Your task to perform on an android device: turn notification dots on Image 0: 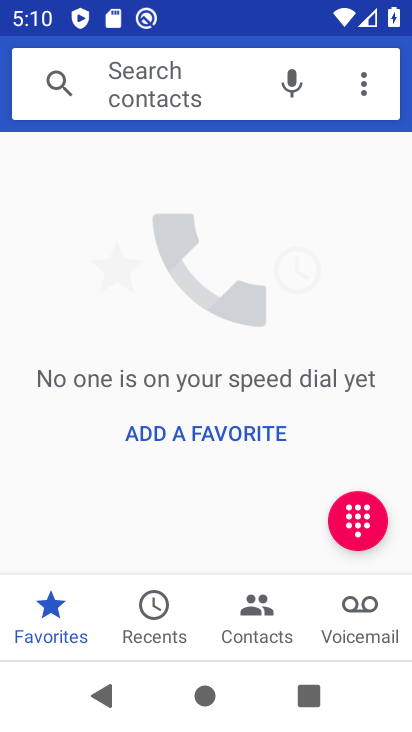
Step 0: press home button
Your task to perform on an android device: turn notification dots on Image 1: 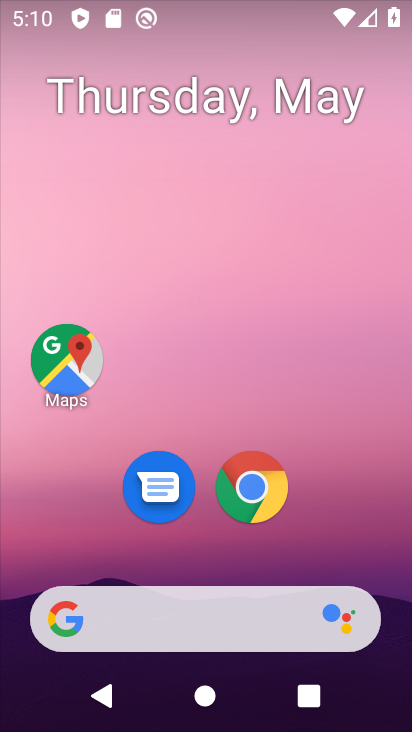
Step 1: drag from (320, 545) to (272, 86)
Your task to perform on an android device: turn notification dots on Image 2: 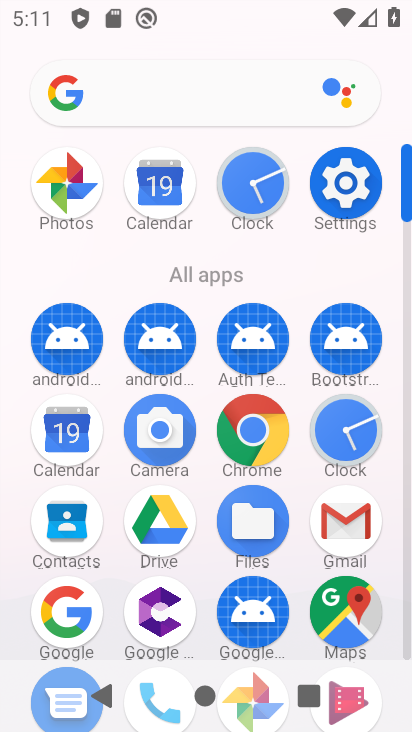
Step 2: click (336, 186)
Your task to perform on an android device: turn notification dots on Image 3: 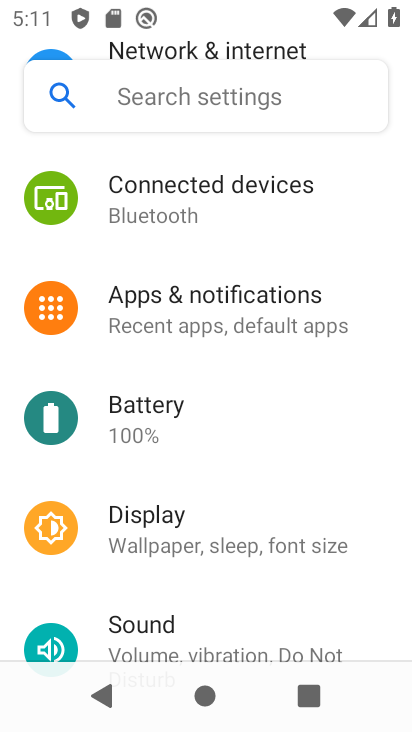
Step 3: drag from (273, 392) to (271, 609)
Your task to perform on an android device: turn notification dots on Image 4: 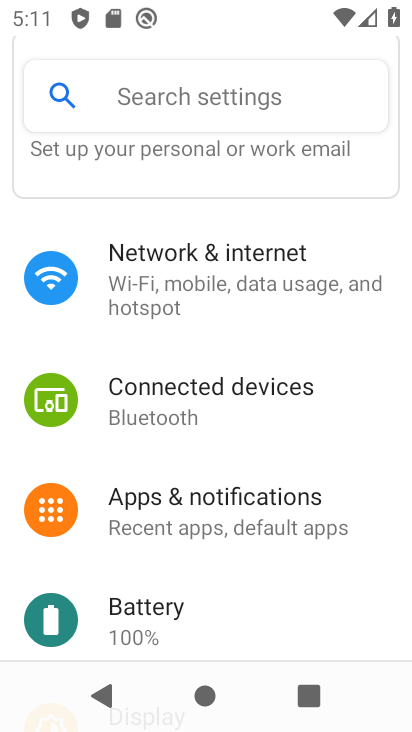
Step 4: click (246, 505)
Your task to perform on an android device: turn notification dots on Image 5: 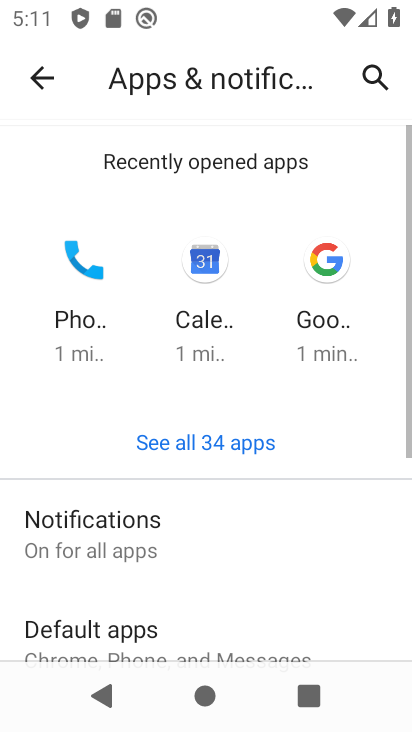
Step 5: click (238, 534)
Your task to perform on an android device: turn notification dots on Image 6: 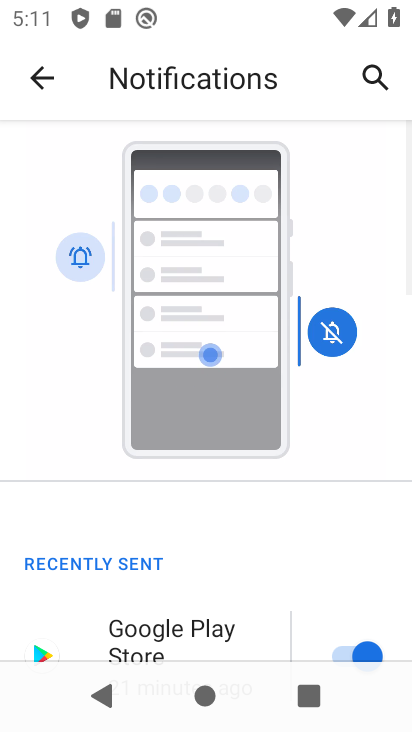
Step 6: drag from (249, 573) to (249, 151)
Your task to perform on an android device: turn notification dots on Image 7: 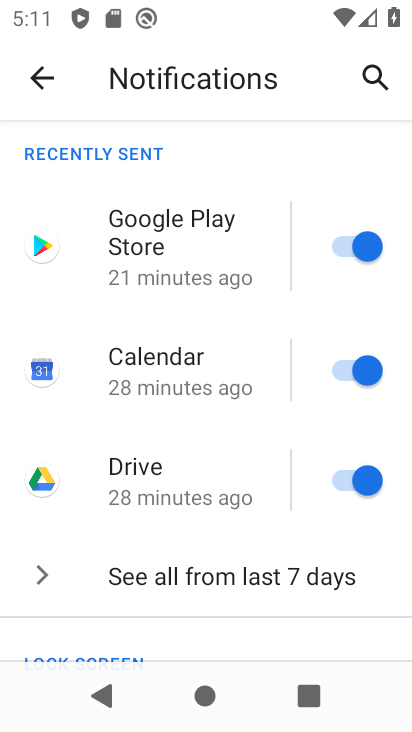
Step 7: drag from (220, 495) to (226, 217)
Your task to perform on an android device: turn notification dots on Image 8: 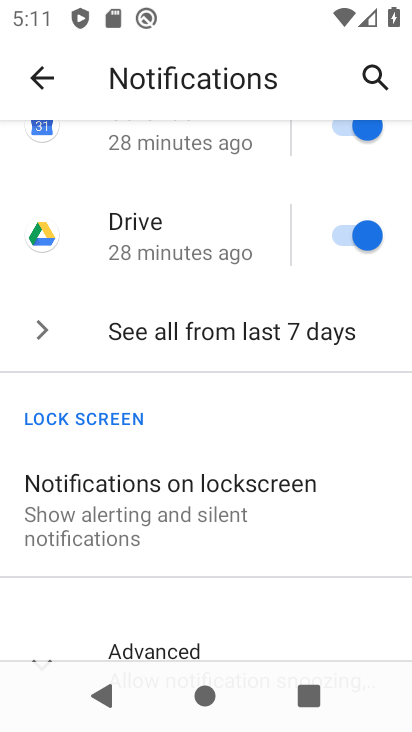
Step 8: drag from (239, 489) to (222, 212)
Your task to perform on an android device: turn notification dots on Image 9: 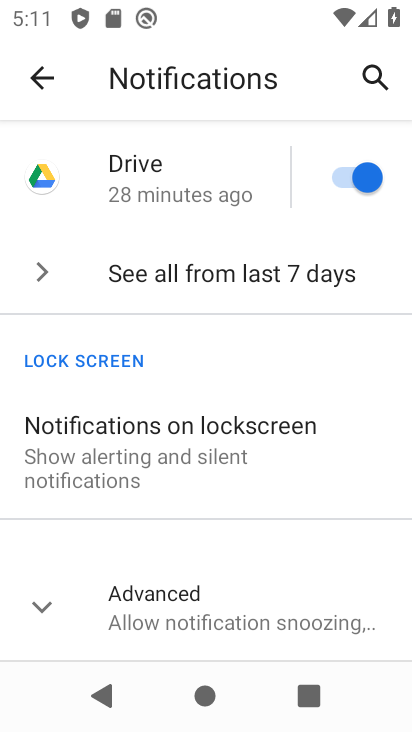
Step 9: click (41, 602)
Your task to perform on an android device: turn notification dots on Image 10: 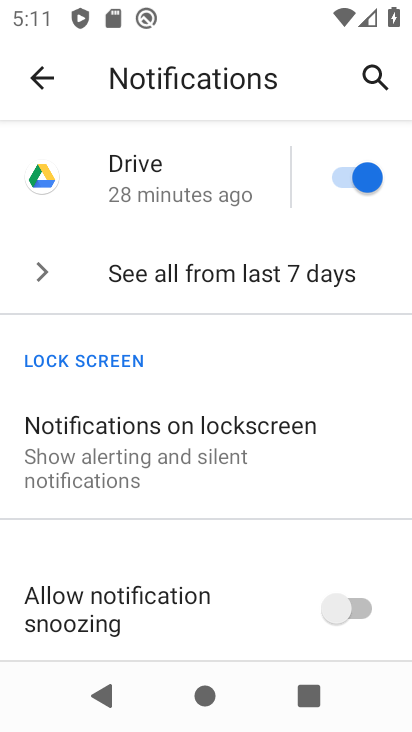
Step 10: drag from (215, 606) to (194, 204)
Your task to perform on an android device: turn notification dots on Image 11: 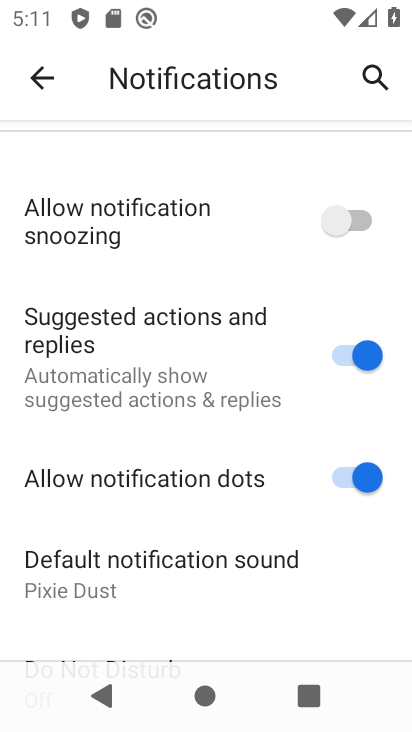
Step 11: click (345, 475)
Your task to perform on an android device: turn notification dots on Image 12: 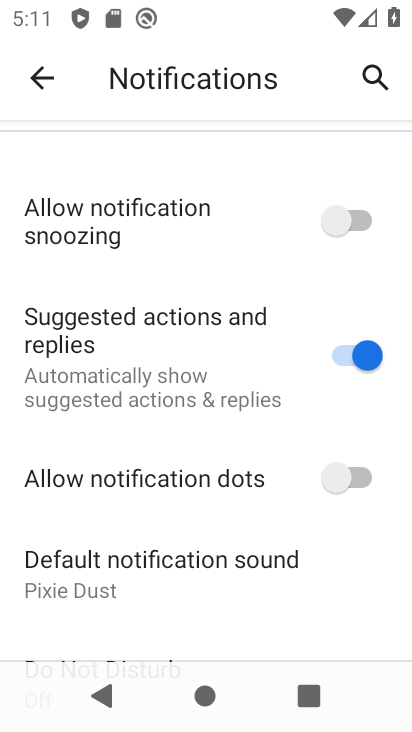
Step 12: task complete